Your task to perform on an android device: snooze an email in the gmail app Image 0: 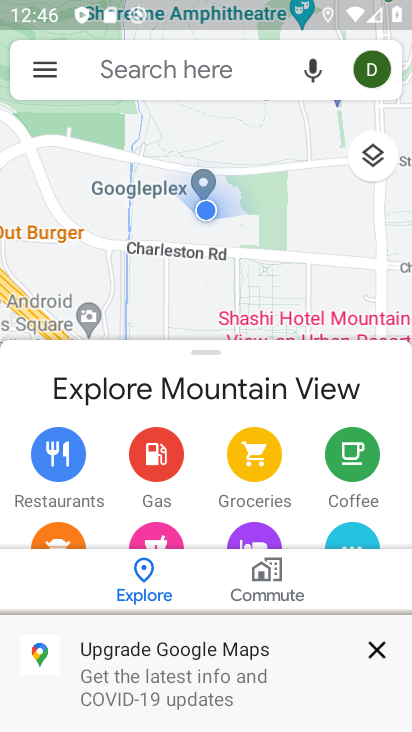
Step 0: press back button
Your task to perform on an android device: snooze an email in the gmail app Image 1: 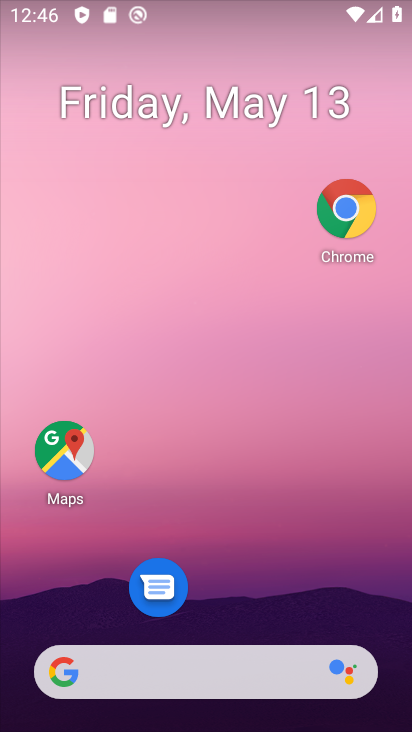
Step 1: drag from (202, 615) to (312, 87)
Your task to perform on an android device: snooze an email in the gmail app Image 2: 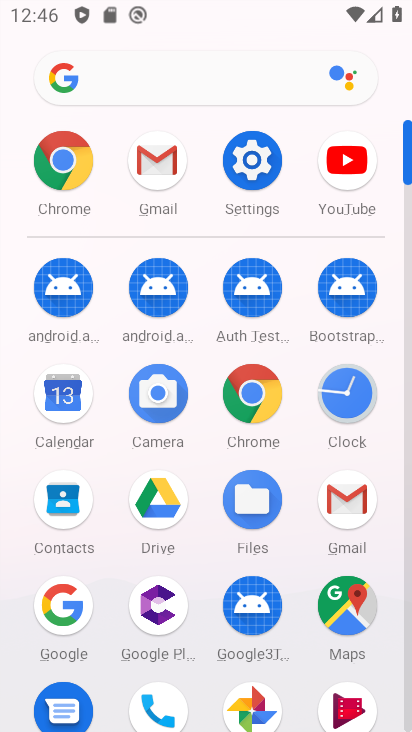
Step 2: click (155, 159)
Your task to perform on an android device: snooze an email in the gmail app Image 3: 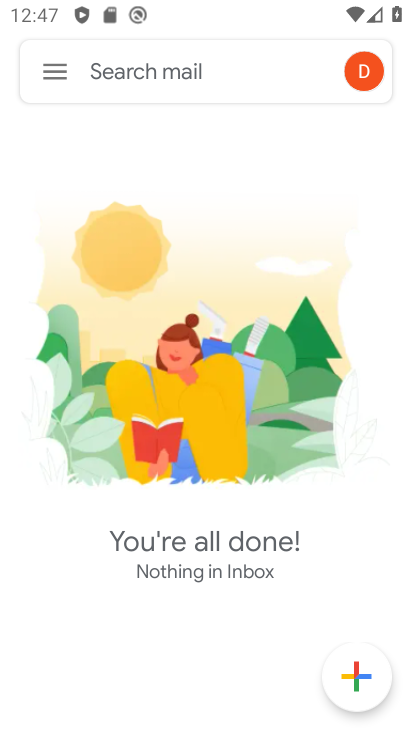
Step 3: click (50, 73)
Your task to perform on an android device: snooze an email in the gmail app Image 4: 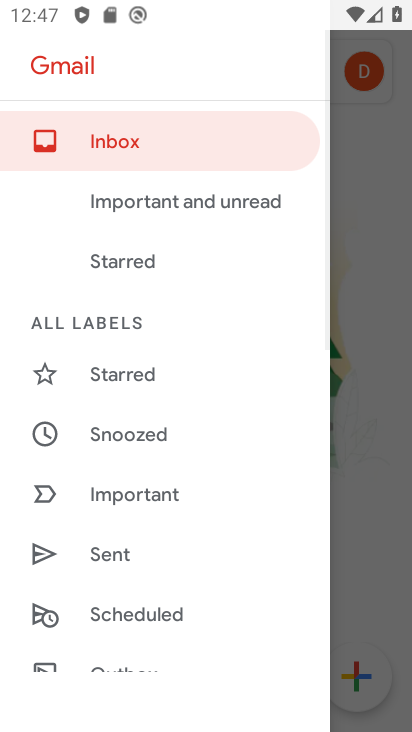
Step 4: drag from (130, 613) to (238, 242)
Your task to perform on an android device: snooze an email in the gmail app Image 5: 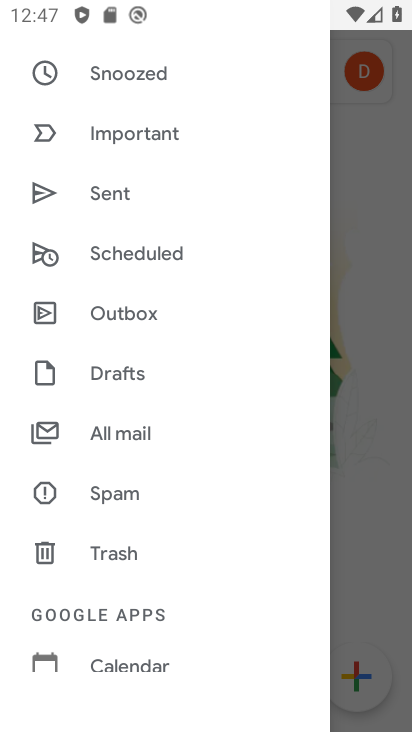
Step 5: click (118, 434)
Your task to perform on an android device: snooze an email in the gmail app Image 6: 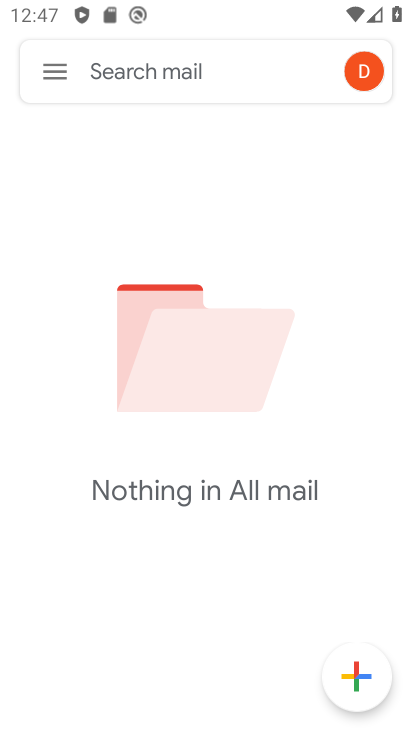
Step 6: task complete